Your task to perform on an android device: Add "jbl charge 4" to the cart on bestbuy Image 0: 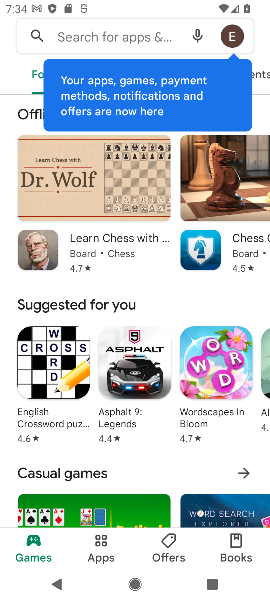
Step 0: press home button
Your task to perform on an android device: Add "jbl charge 4" to the cart on bestbuy Image 1: 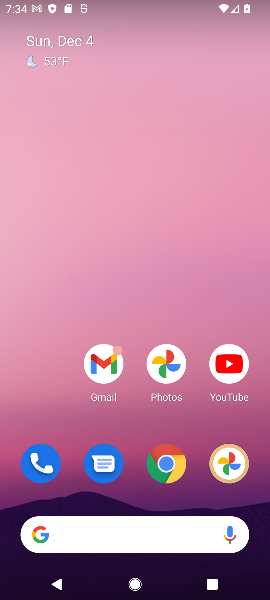
Step 1: click (199, 526)
Your task to perform on an android device: Add "jbl charge 4" to the cart on bestbuy Image 2: 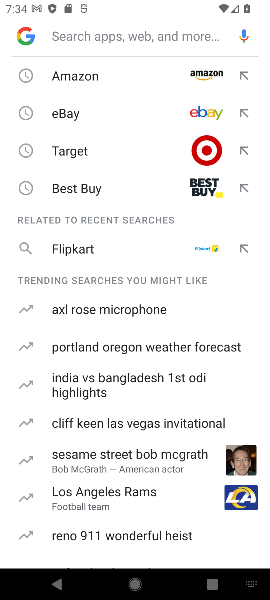
Step 2: type "bestbuy"
Your task to perform on an android device: Add "jbl charge 4" to the cart on bestbuy Image 3: 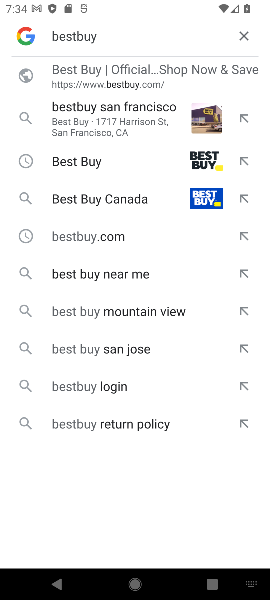
Step 3: click (105, 92)
Your task to perform on an android device: Add "jbl charge 4" to the cart on bestbuy Image 4: 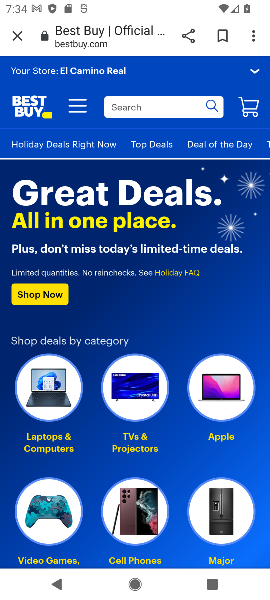
Step 4: click (131, 106)
Your task to perform on an android device: Add "jbl charge 4" to the cart on bestbuy Image 5: 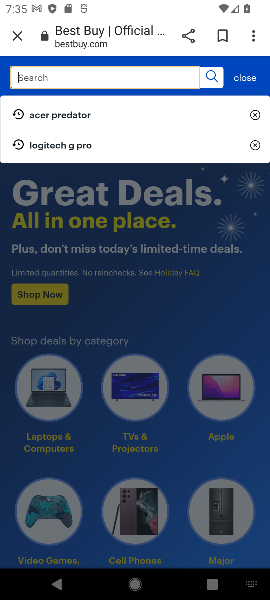
Step 5: type "jbl charge 4"
Your task to perform on an android device: Add "jbl charge 4" to the cart on bestbuy Image 6: 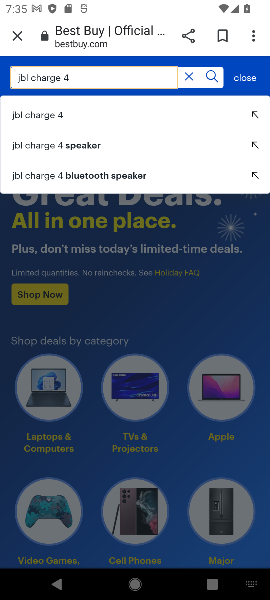
Step 6: click (34, 117)
Your task to perform on an android device: Add "jbl charge 4" to the cart on bestbuy Image 7: 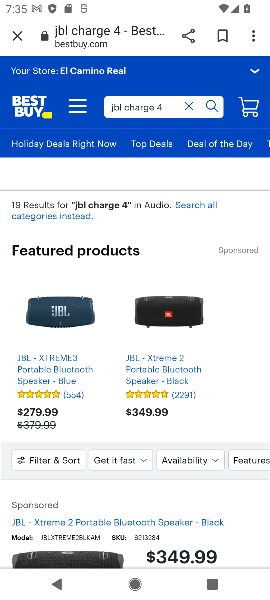
Step 7: click (71, 365)
Your task to perform on an android device: Add "jbl charge 4" to the cart on bestbuy Image 8: 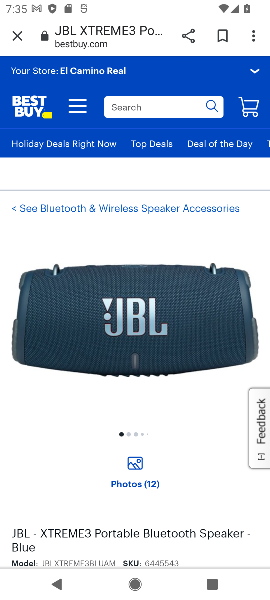
Step 8: click (101, 522)
Your task to perform on an android device: Add "jbl charge 4" to the cart on bestbuy Image 9: 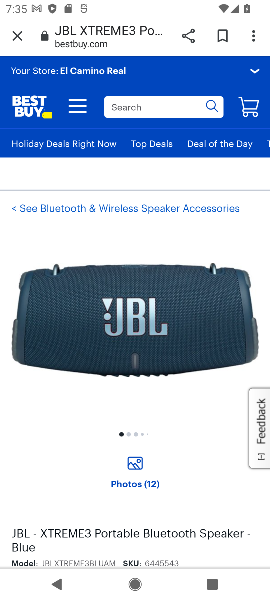
Step 9: task complete